Your task to perform on an android device: What is the news today? Image 0: 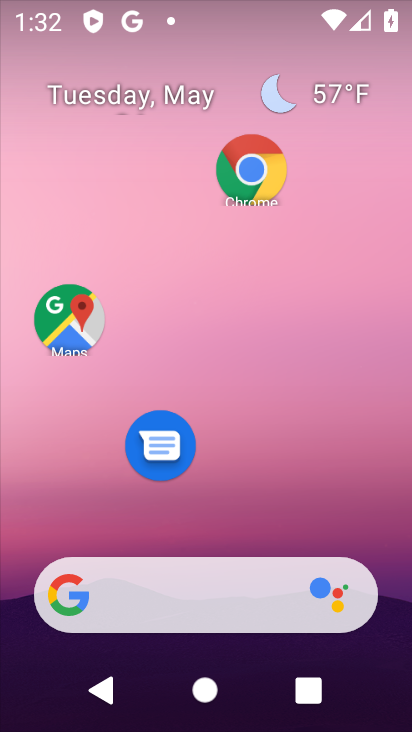
Step 0: drag from (2, 241) to (359, 223)
Your task to perform on an android device: What is the news today? Image 1: 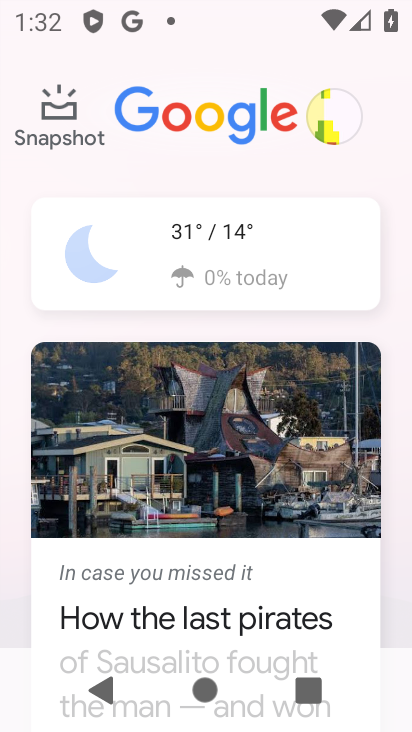
Step 1: task complete